Your task to perform on an android device: Go to Android settings Image 0: 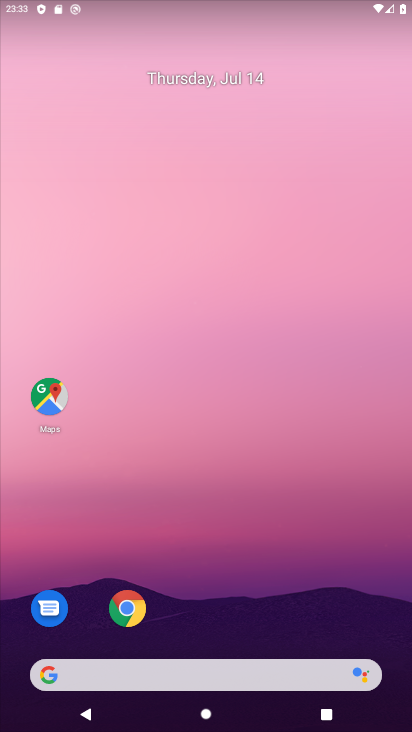
Step 0: drag from (51, 693) to (185, 70)
Your task to perform on an android device: Go to Android settings Image 1: 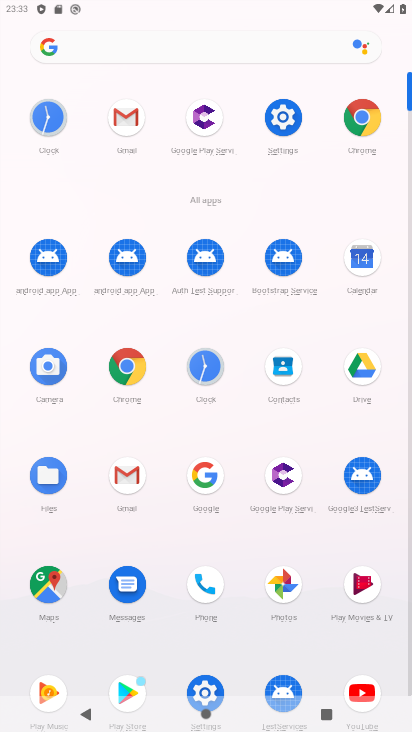
Step 1: click (206, 689)
Your task to perform on an android device: Go to Android settings Image 2: 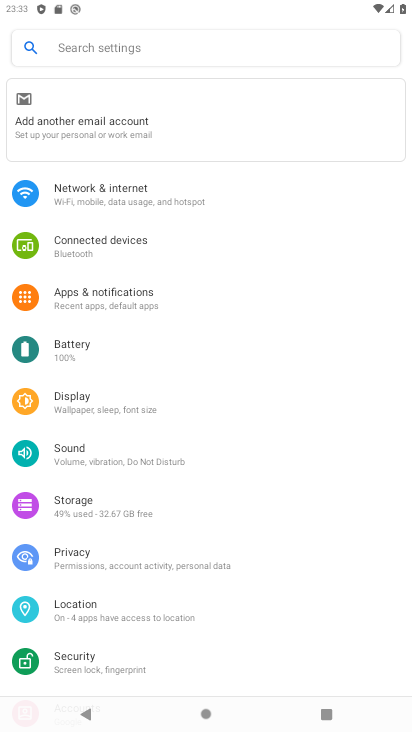
Step 2: drag from (281, 570) to (260, 202)
Your task to perform on an android device: Go to Android settings Image 3: 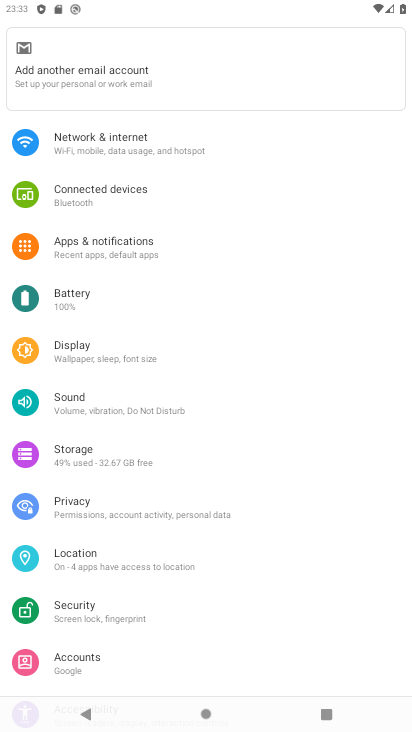
Step 3: drag from (326, 602) to (332, 164)
Your task to perform on an android device: Go to Android settings Image 4: 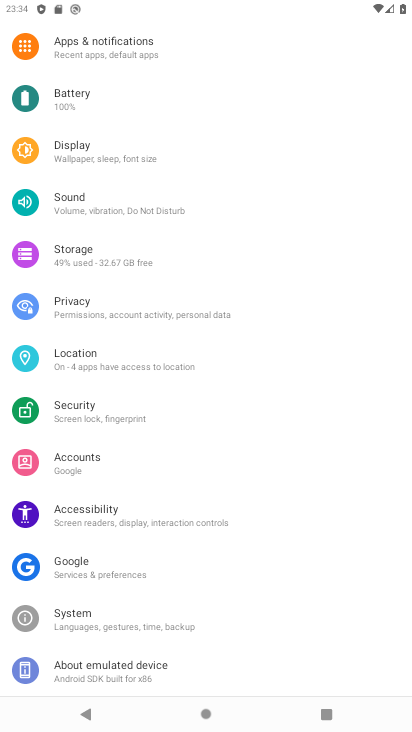
Step 4: click (66, 656)
Your task to perform on an android device: Go to Android settings Image 5: 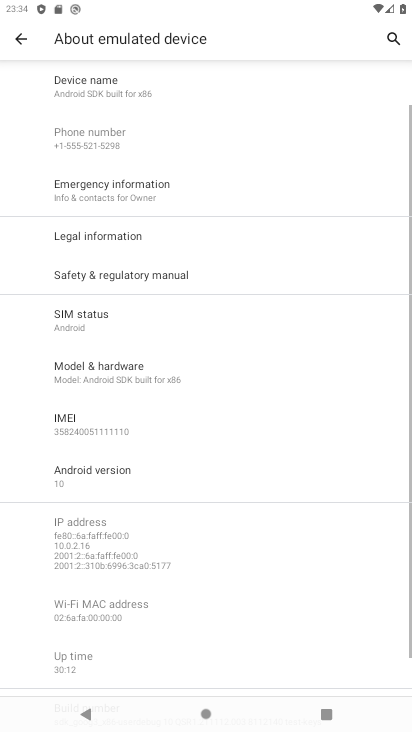
Step 5: click (83, 479)
Your task to perform on an android device: Go to Android settings Image 6: 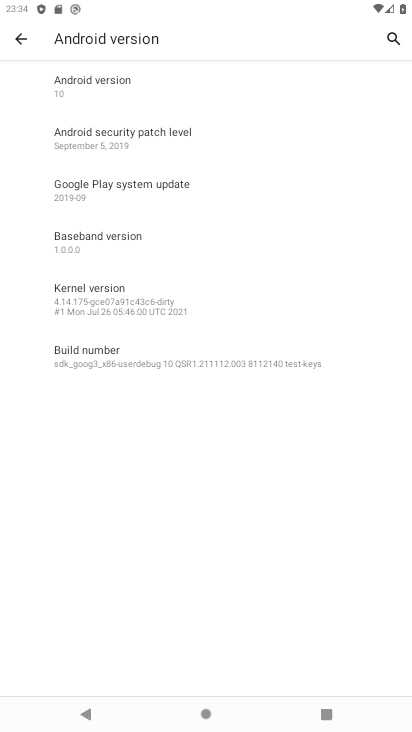
Step 6: task complete